Your task to perform on an android device: change notification settings in the gmail app Image 0: 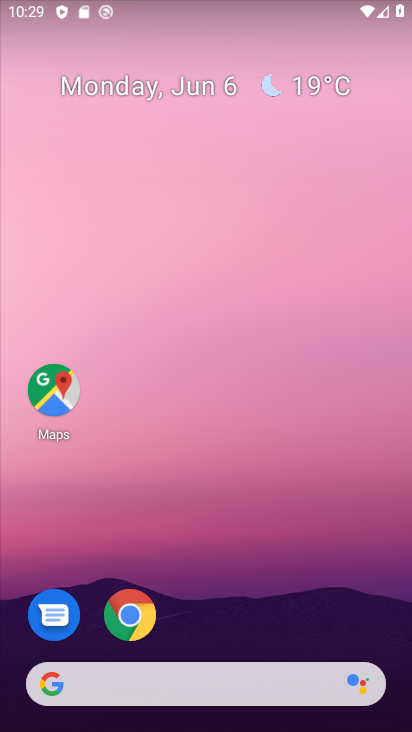
Step 0: task complete